Your task to perform on an android device: Add asus rog to the cart on bestbuy Image 0: 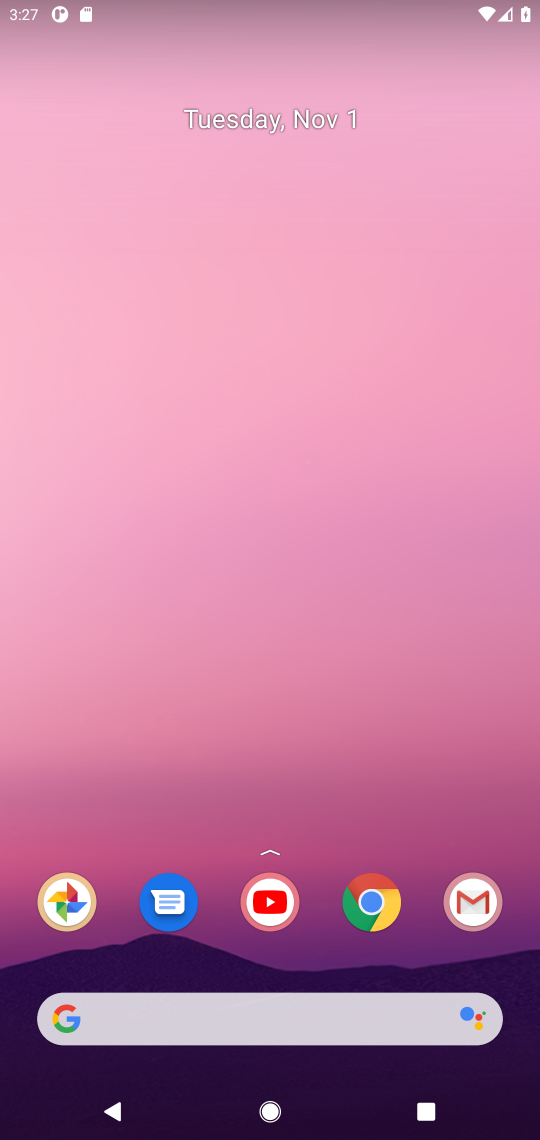
Step 0: click (373, 901)
Your task to perform on an android device: Add asus rog to the cart on bestbuy Image 1: 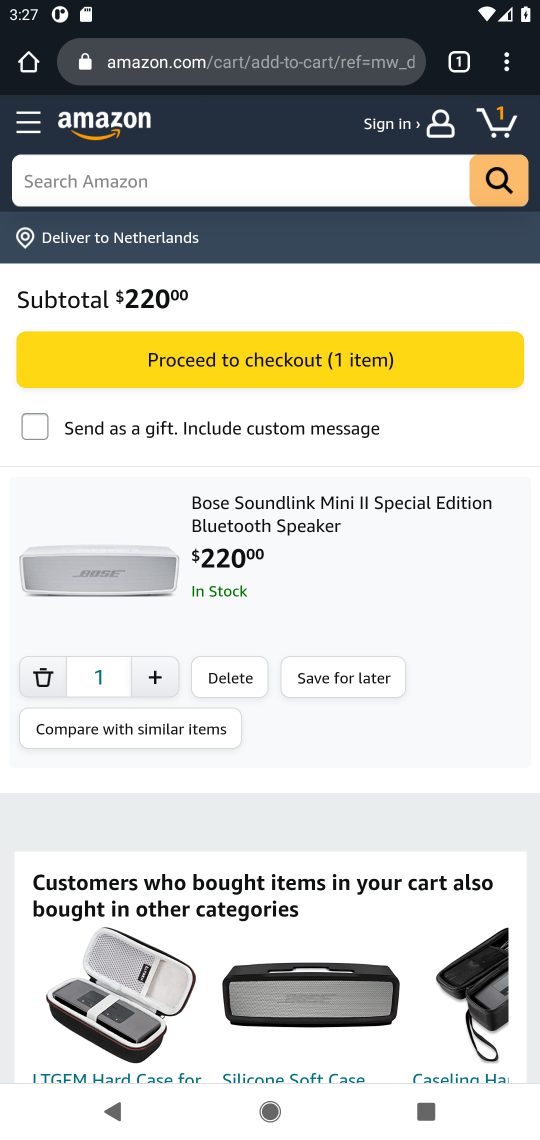
Step 1: click (255, 55)
Your task to perform on an android device: Add asus rog to the cart on bestbuy Image 2: 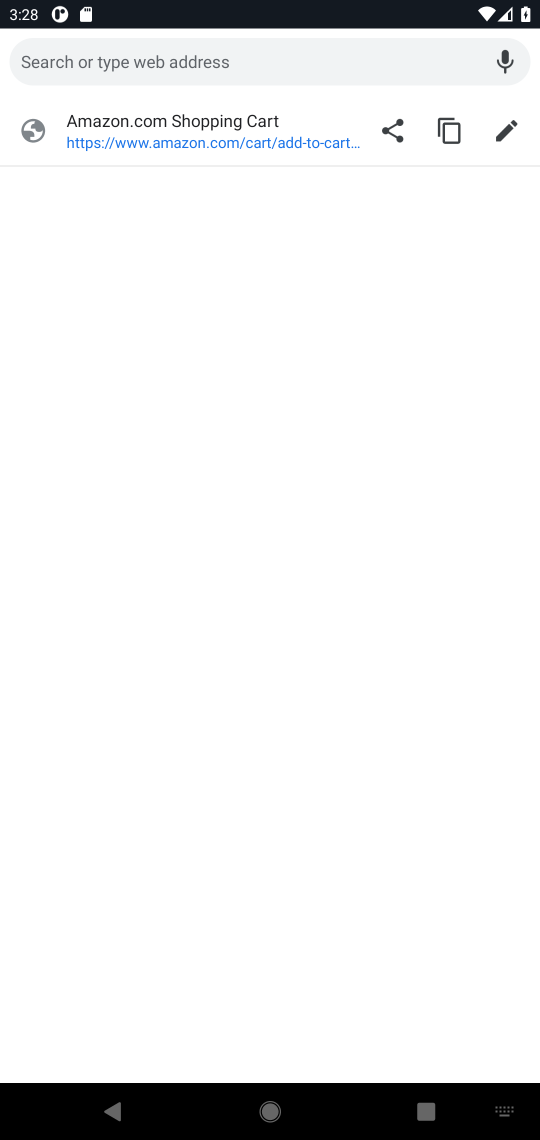
Step 2: type "bestbuy"
Your task to perform on an android device: Add asus rog to the cart on bestbuy Image 3: 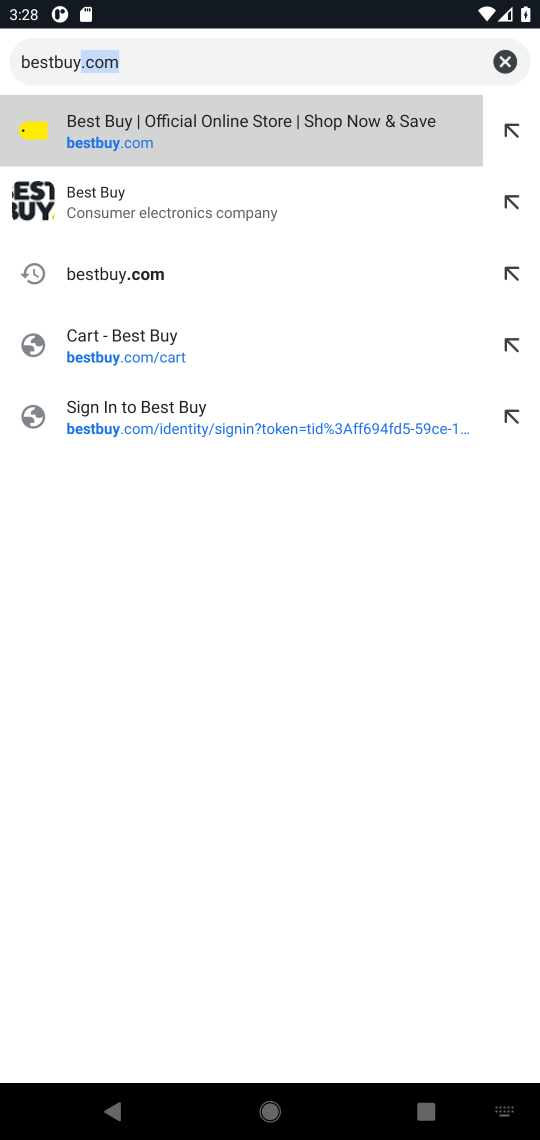
Step 3: click (71, 192)
Your task to perform on an android device: Add asus rog to the cart on bestbuy Image 4: 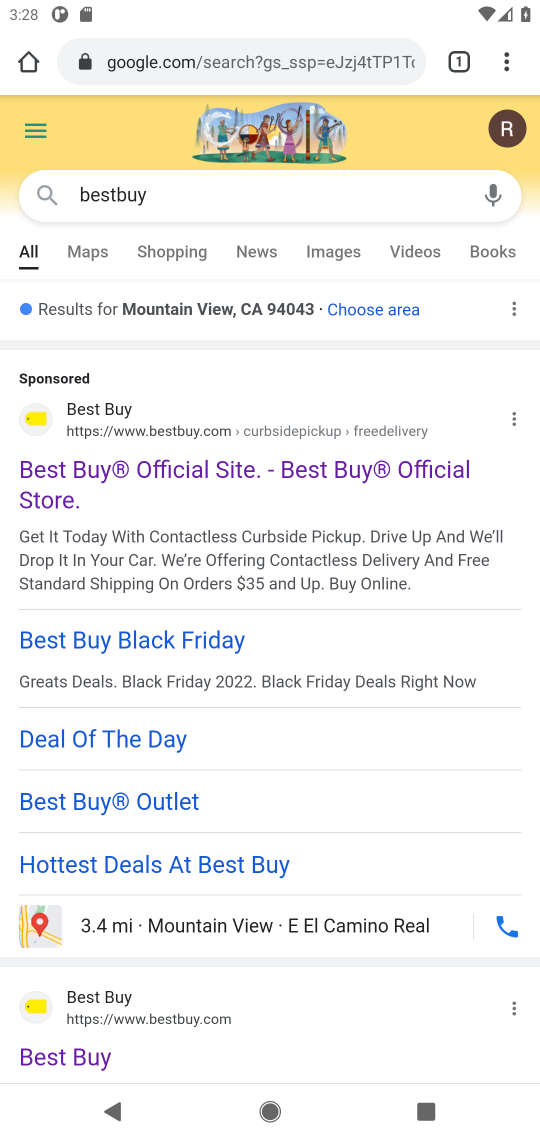
Step 4: click (133, 1021)
Your task to perform on an android device: Add asus rog to the cart on bestbuy Image 5: 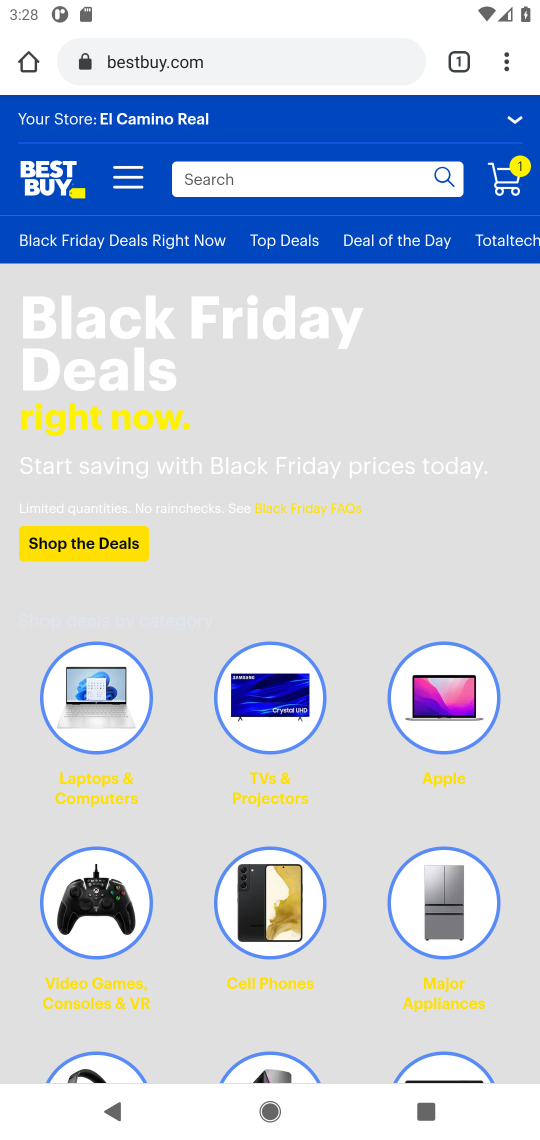
Step 5: click (362, 183)
Your task to perform on an android device: Add asus rog to the cart on bestbuy Image 6: 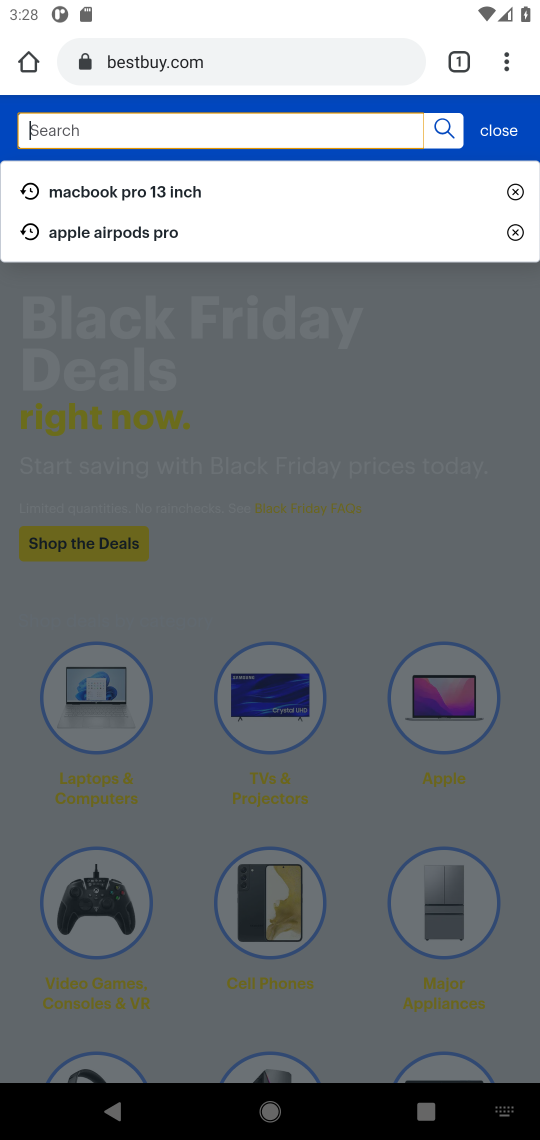
Step 6: type "asus rog"
Your task to perform on an android device: Add asus rog to the cart on bestbuy Image 7: 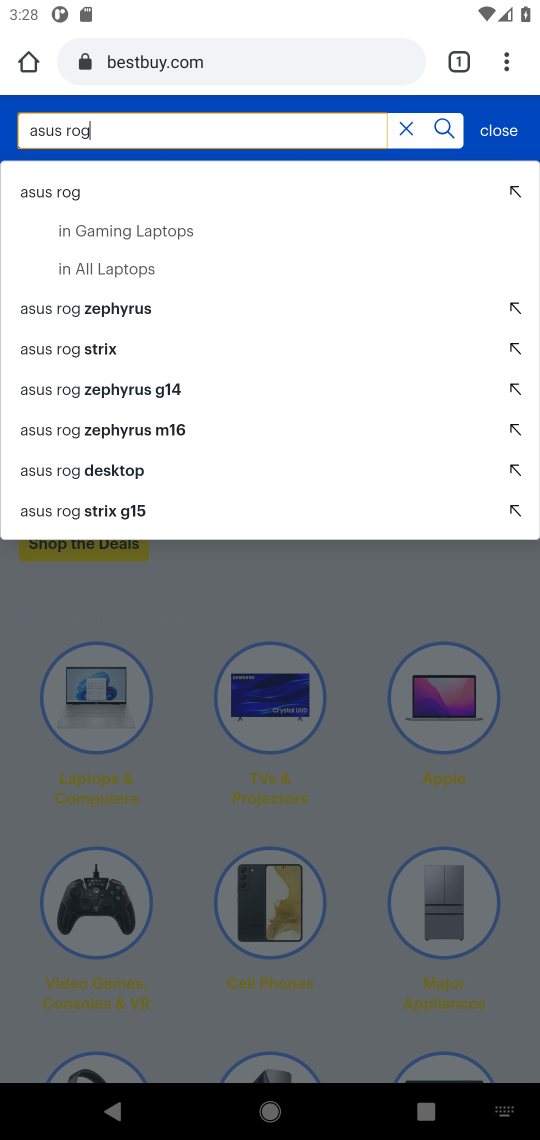
Step 7: click (56, 196)
Your task to perform on an android device: Add asus rog to the cart on bestbuy Image 8: 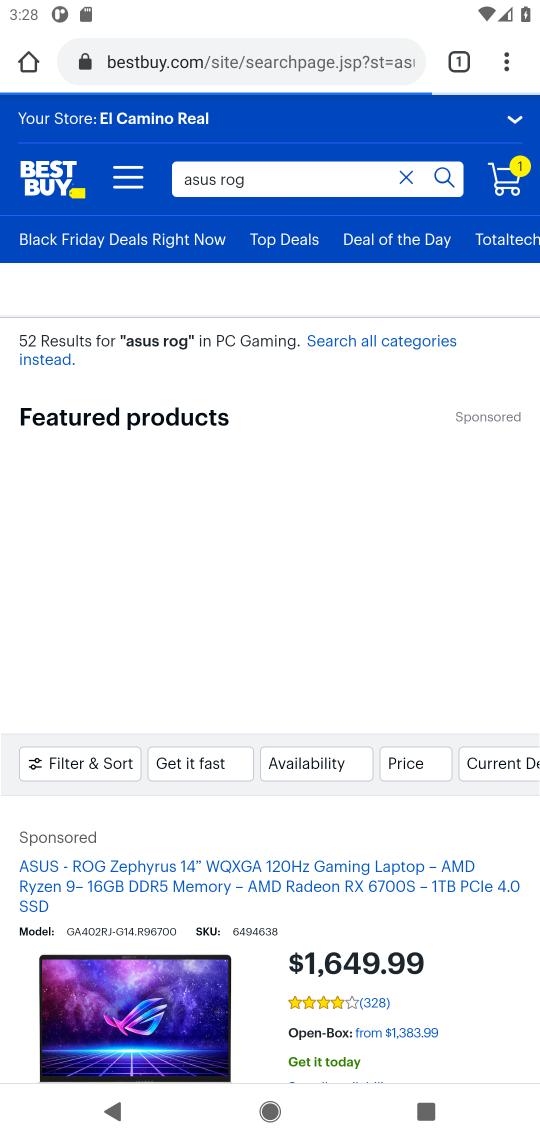
Step 8: click (342, 869)
Your task to perform on an android device: Add asus rog to the cart on bestbuy Image 9: 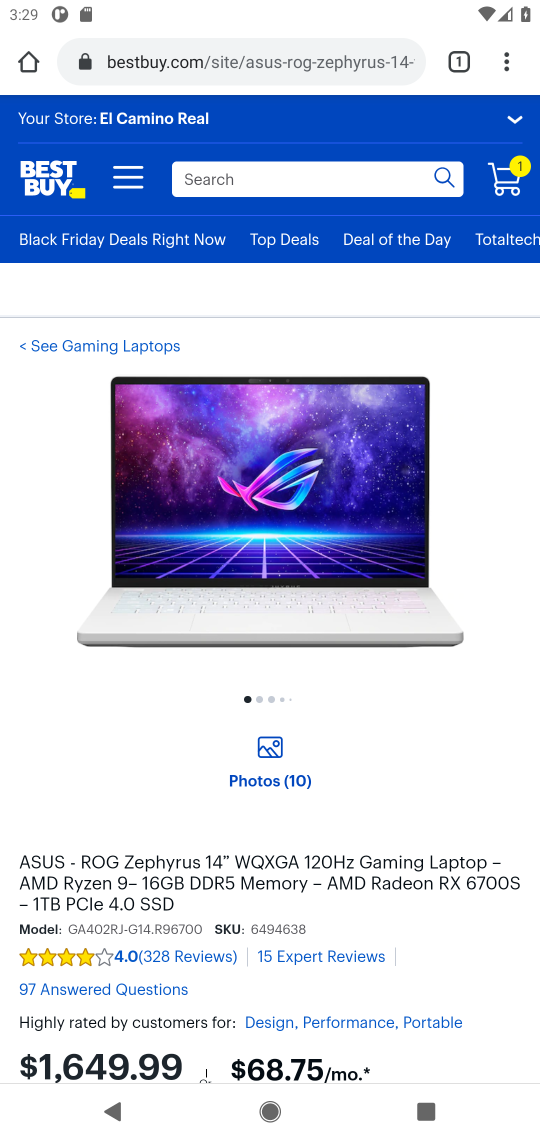
Step 9: drag from (365, 908) to (460, 362)
Your task to perform on an android device: Add asus rog to the cart on bestbuy Image 10: 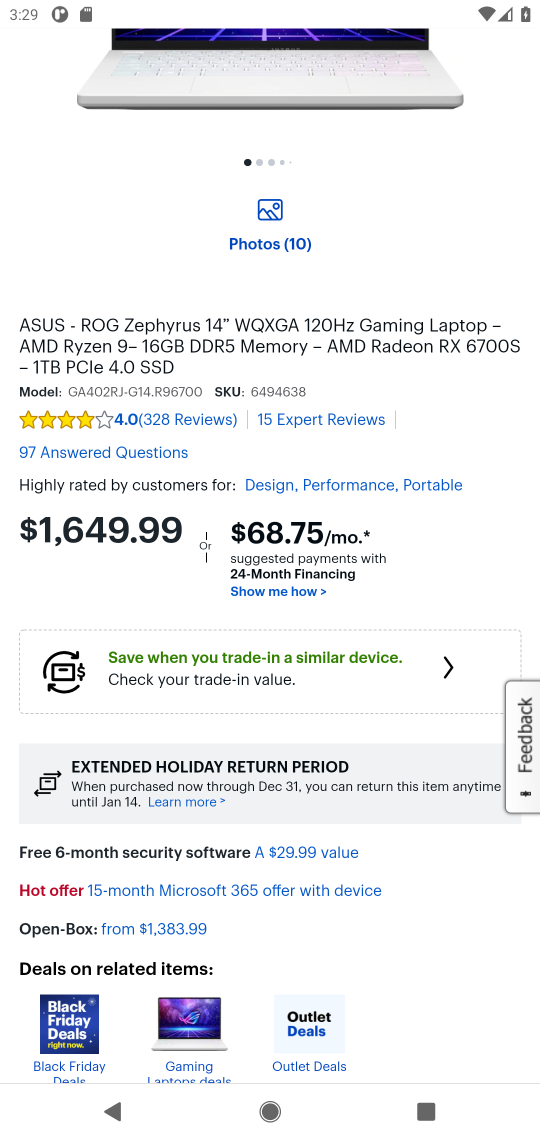
Step 10: drag from (356, 917) to (439, 535)
Your task to perform on an android device: Add asus rog to the cart on bestbuy Image 11: 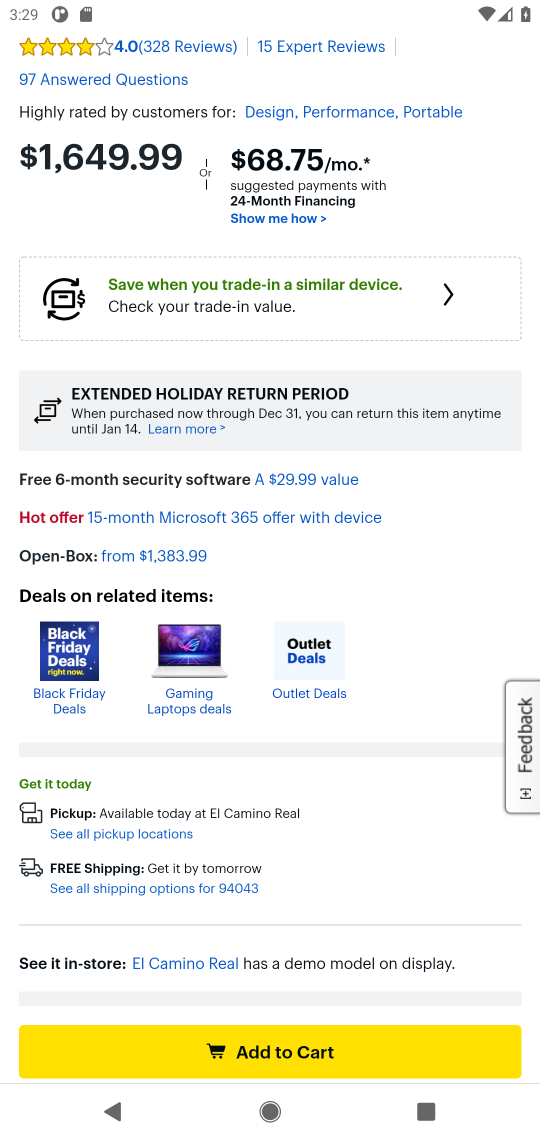
Step 11: click (281, 1049)
Your task to perform on an android device: Add asus rog to the cart on bestbuy Image 12: 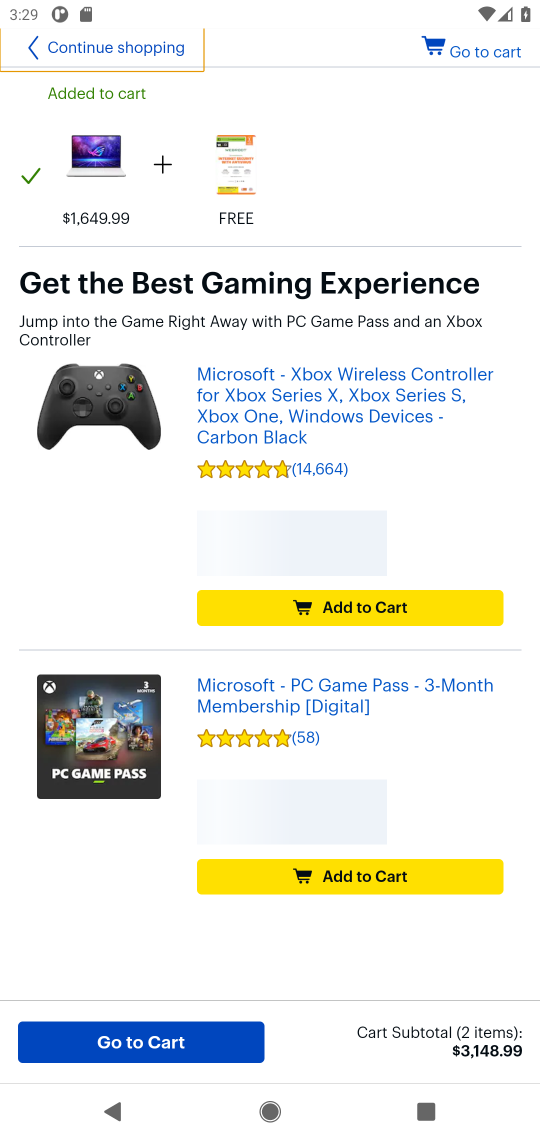
Step 12: click (154, 1047)
Your task to perform on an android device: Add asus rog to the cart on bestbuy Image 13: 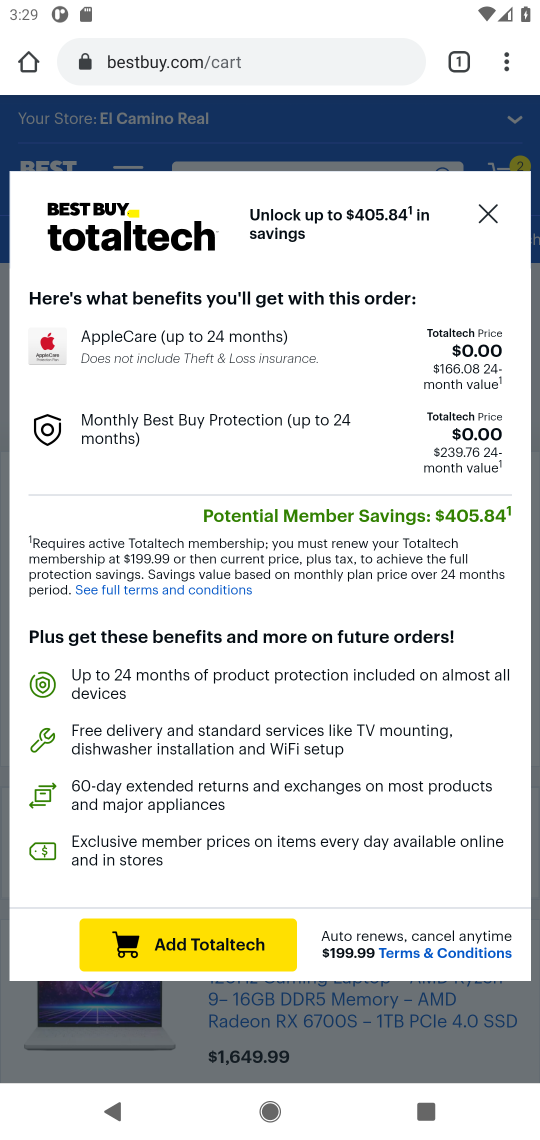
Step 13: click (489, 214)
Your task to perform on an android device: Add asus rog to the cart on bestbuy Image 14: 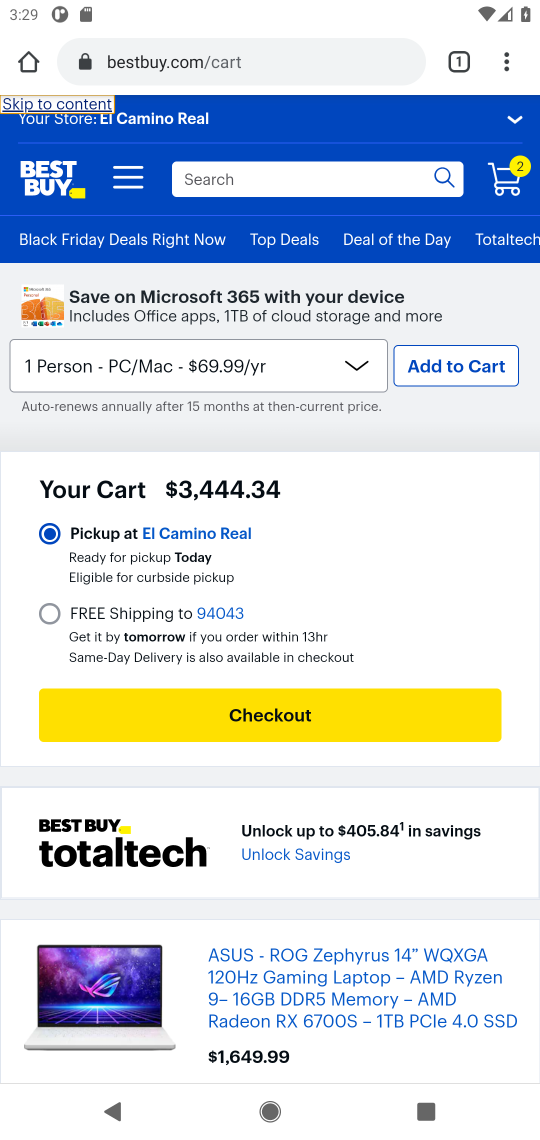
Step 14: task complete